Your task to perform on an android device: Empty the shopping cart on newegg. Search for "sony triple a" on newegg, select the first entry, and add it to the cart. Image 0: 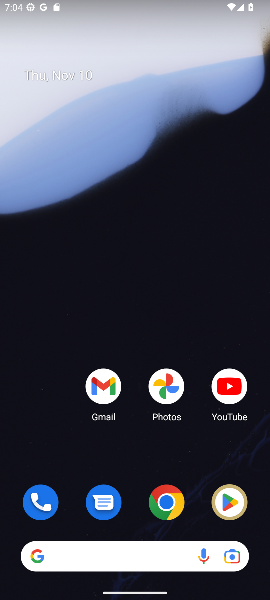
Step 0: click (130, 545)
Your task to perform on an android device: Empty the shopping cart on newegg. Search for "sony triple a" on newegg, select the first entry, and add it to the cart. Image 1: 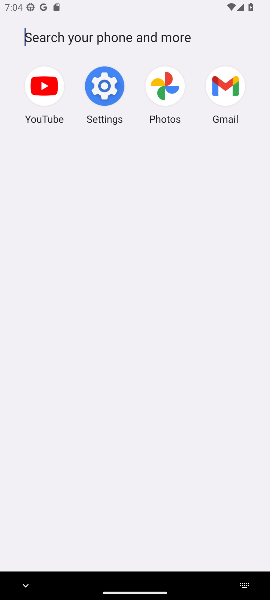
Step 1: press back button
Your task to perform on an android device: Empty the shopping cart on newegg. Search for "sony triple a" on newegg, select the first entry, and add it to the cart. Image 2: 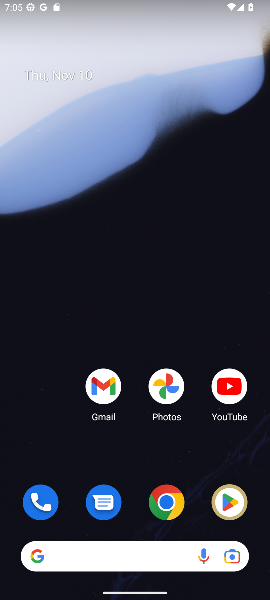
Step 2: drag from (136, 493) to (114, 236)
Your task to perform on an android device: Empty the shopping cart on newegg. Search for "sony triple a" on newegg, select the first entry, and add it to the cart. Image 3: 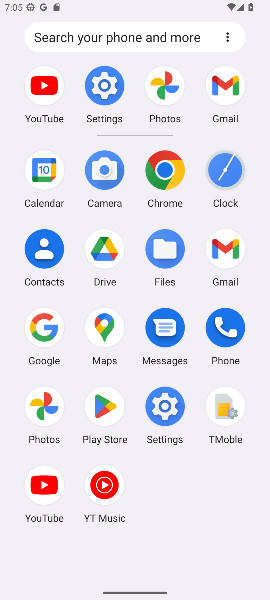
Step 3: click (45, 329)
Your task to perform on an android device: Empty the shopping cart on newegg. Search for "sony triple a" on newegg, select the first entry, and add it to the cart. Image 4: 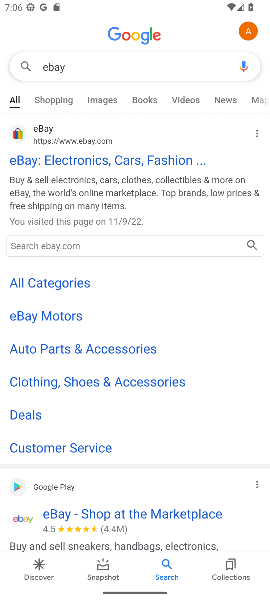
Step 4: click (147, 64)
Your task to perform on an android device: Empty the shopping cart on newegg. Search for "sony triple a" on newegg, select the first entry, and add it to the cart. Image 5: 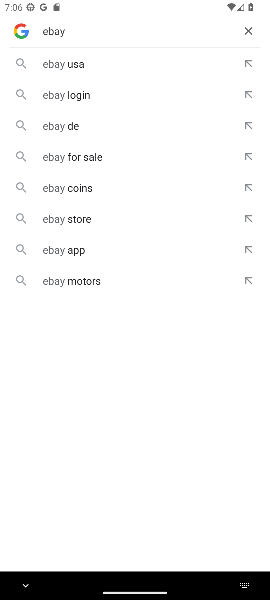
Step 5: click (244, 33)
Your task to perform on an android device: Empty the shopping cart on newegg. Search for "sony triple a" on newegg, select the first entry, and add it to the cart. Image 6: 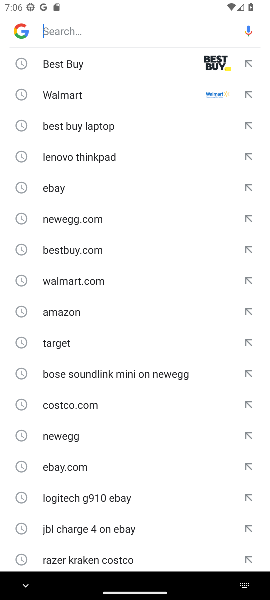
Step 6: type "newegg"
Your task to perform on an android device: Empty the shopping cart on newegg. Search for "sony triple a" on newegg, select the first entry, and add it to the cart. Image 7: 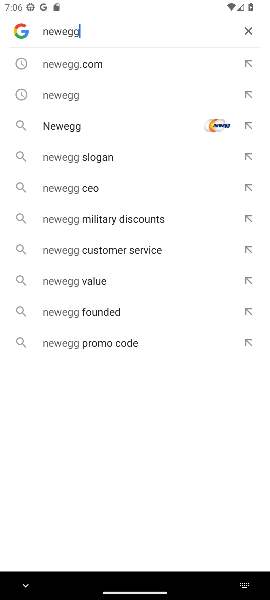
Step 7: click (78, 126)
Your task to perform on an android device: Empty the shopping cart on newegg. Search for "sony triple a" on newegg, select the first entry, and add it to the cart. Image 8: 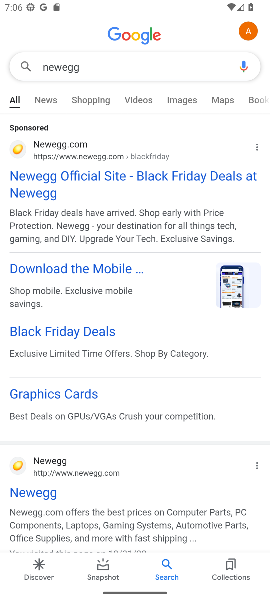
Step 8: click (63, 151)
Your task to perform on an android device: Empty the shopping cart on newegg. Search for "sony triple a" on newegg, select the first entry, and add it to the cart. Image 9: 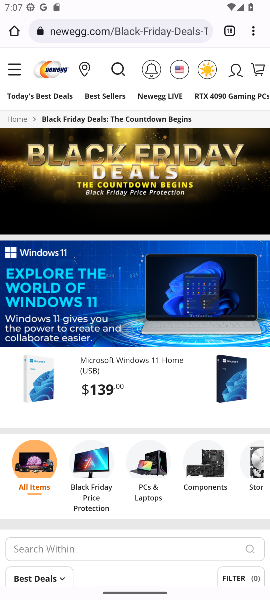
Step 9: click (253, 69)
Your task to perform on an android device: Empty the shopping cart on newegg. Search for "sony triple a" on newegg, select the first entry, and add it to the cart. Image 10: 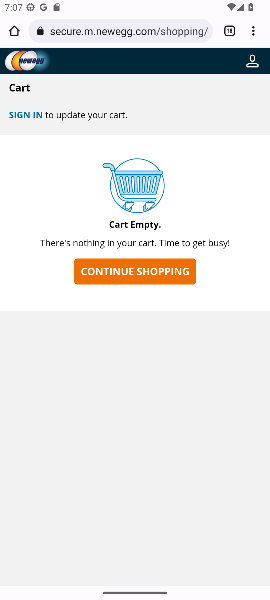
Step 10: click (111, 267)
Your task to perform on an android device: Empty the shopping cart on newegg. Search for "sony triple a" on newegg, select the first entry, and add it to the cart. Image 11: 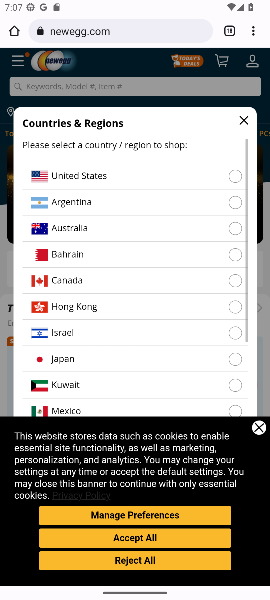
Step 11: click (75, 87)
Your task to perform on an android device: Empty the shopping cart on newegg. Search for "sony triple a" on newegg, select the first entry, and add it to the cart. Image 12: 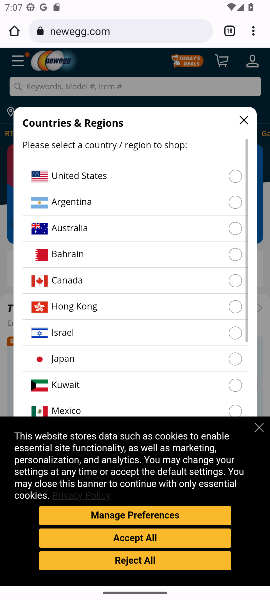
Step 12: click (234, 175)
Your task to perform on an android device: Empty the shopping cart on newegg. Search for "sony triple a" on newegg, select the first entry, and add it to the cart. Image 13: 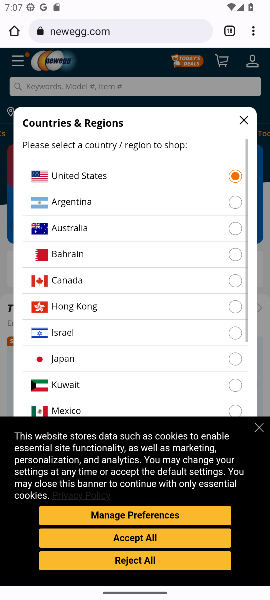
Step 13: click (255, 433)
Your task to perform on an android device: Empty the shopping cart on newegg. Search for "sony triple a" on newegg, select the first entry, and add it to the cart. Image 14: 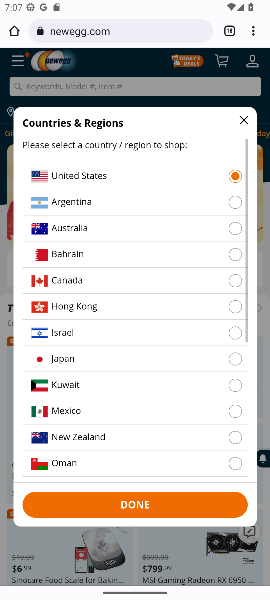
Step 14: click (144, 505)
Your task to perform on an android device: Empty the shopping cart on newegg. Search for "sony triple a" on newegg, select the first entry, and add it to the cart. Image 15: 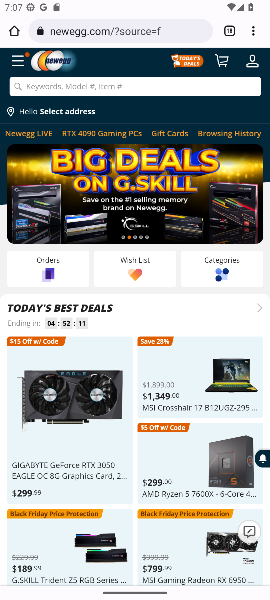
Step 15: click (92, 83)
Your task to perform on an android device: Empty the shopping cart on newegg. Search for "sony triple a" on newegg, select the first entry, and add it to the cart. Image 16: 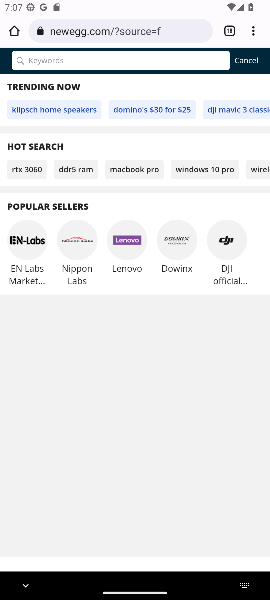
Step 16: type "sony triple a"
Your task to perform on an android device: Empty the shopping cart on newegg. Search for "sony triple a" on newegg, select the first entry, and add it to the cart. Image 17: 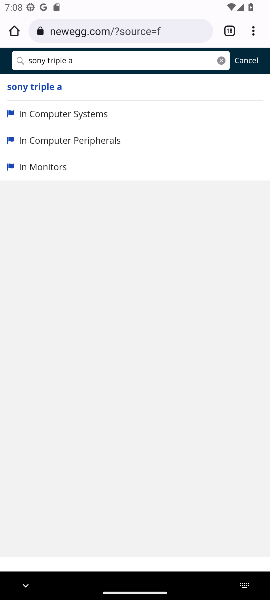
Step 17: click (45, 86)
Your task to perform on an android device: Empty the shopping cart on newegg. Search for "sony triple a" on newegg, select the first entry, and add it to the cart. Image 18: 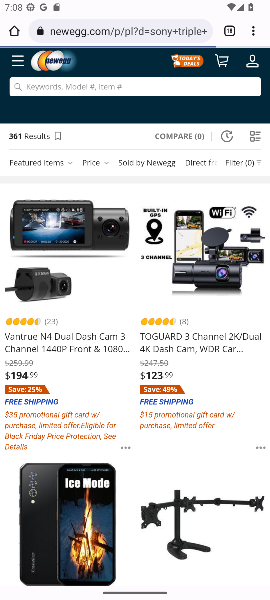
Step 18: click (45, 86)
Your task to perform on an android device: Empty the shopping cart on newegg. Search for "sony triple a" on newegg, select the first entry, and add it to the cart. Image 19: 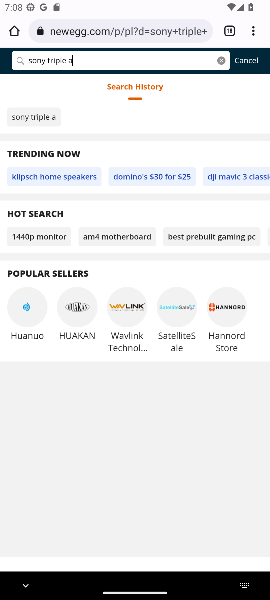
Step 19: click (30, 118)
Your task to perform on an android device: Empty the shopping cart on newegg. Search for "sony triple a" on newegg, select the first entry, and add it to the cart. Image 20: 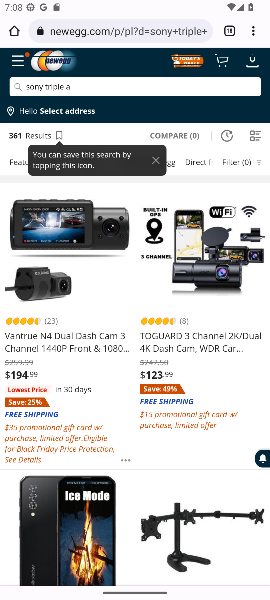
Step 20: click (14, 332)
Your task to perform on an android device: Empty the shopping cart on newegg. Search for "sony triple a" on newegg, select the first entry, and add it to the cart. Image 21: 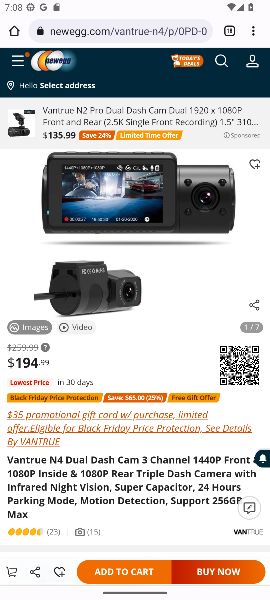
Step 21: click (116, 570)
Your task to perform on an android device: Empty the shopping cart on newegg. Search for "sony triple a" on newegg, select the first entry, and add it to the cart. Image 22: 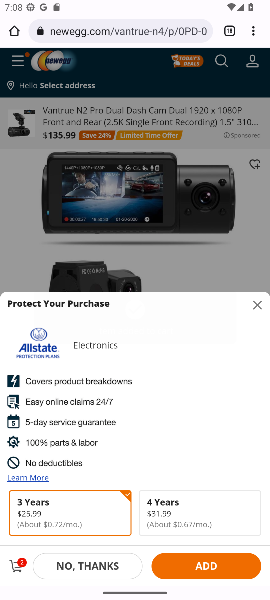
Step 22: task complete